Your task to perform on an android device: toggle priority inbox in the gmail app Image 0: 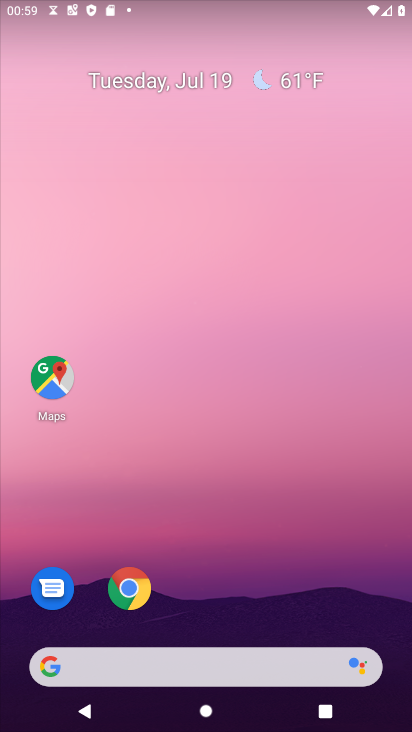
Step 0: drag from (238, 673) to (190, 218)
Your task to perform on an android device: toggle priority inbox in the gmail app Image 1: 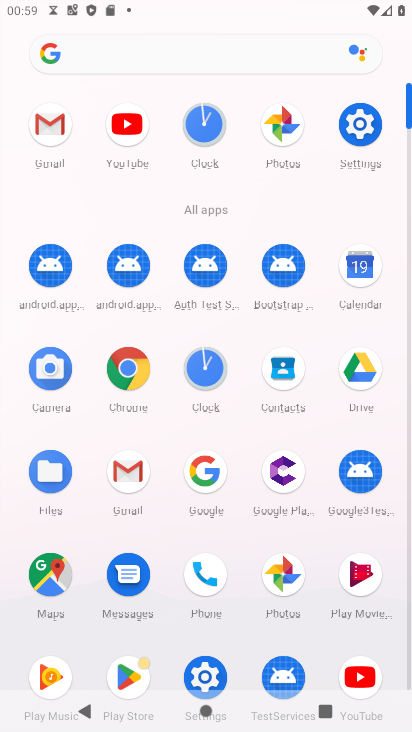
Step 1: click (135, 479)
Your task to perform on an android device: toggle priority inbox in the gmail app Image 2: 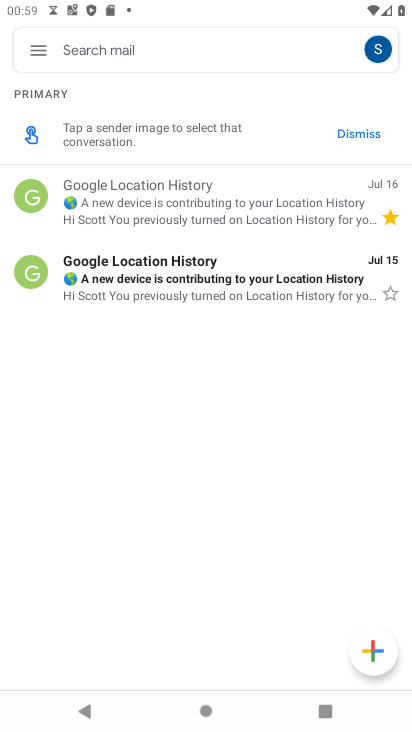
Step 2: click (31, 47)
Your task to perform on an android device: toggle priority inbox in the gmail app Image 3: 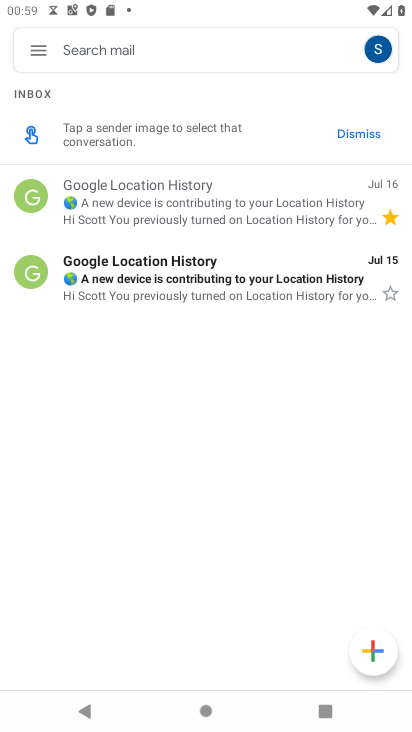
Step 3: click (30, 54)
Your task to perform on an android device: toggle priority inbox in the gmail app Image 4: 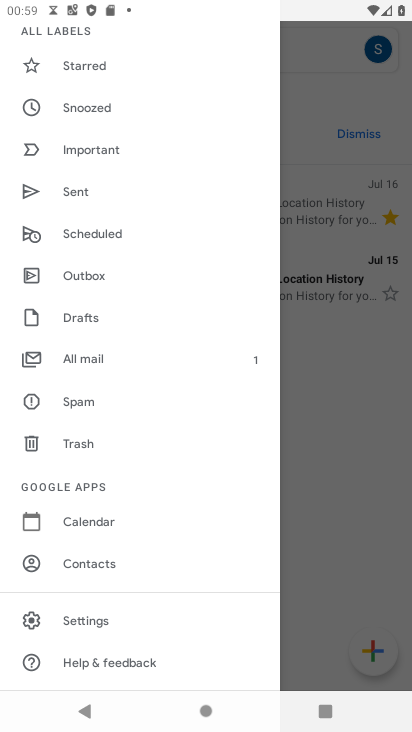
Step 4: click (87, 621)
Your task to perform on an android device: toggle priority inbox in the gmail app Image 5: 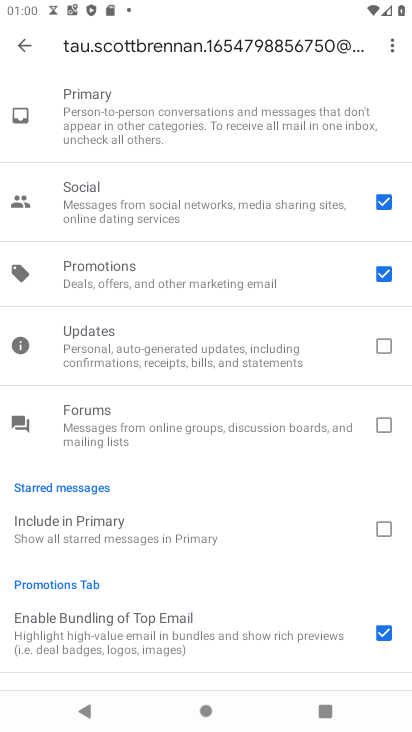
Step 5: click (15, 39)
Your task to perform on an android device: toggle priority inbox in the gmail app Image 6: 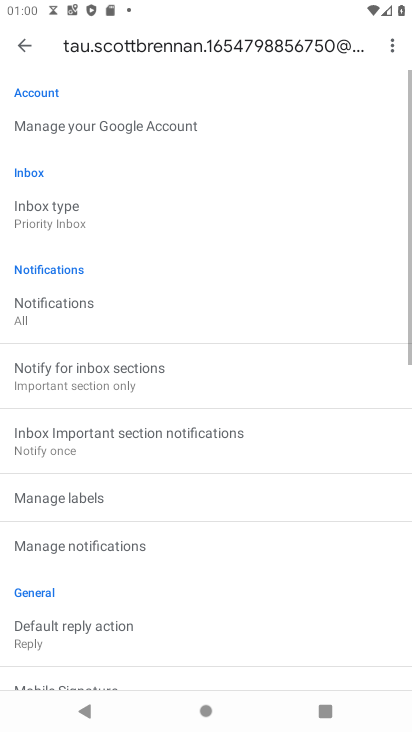
Step 6: click (84, 211)
Your task to perform on an android device: toggle priority inbox in the gmail app Image 7: 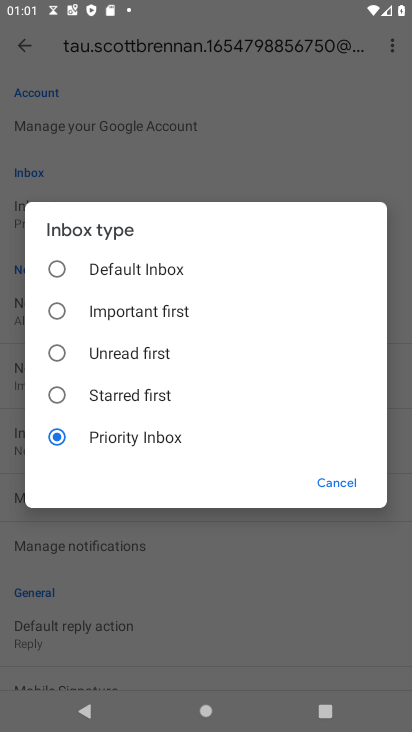
Step 7: task complete